Your task to perform on an android device: When is my next appointment? Image 0: 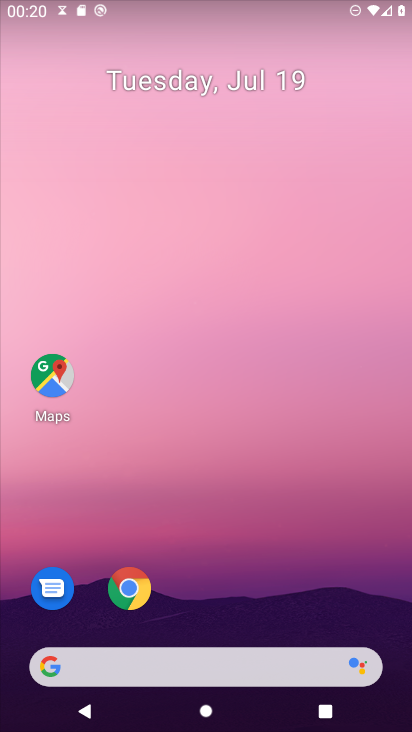
Step 0: press home button
Your task to perform on an android device: When is my next appointment? Image 1: 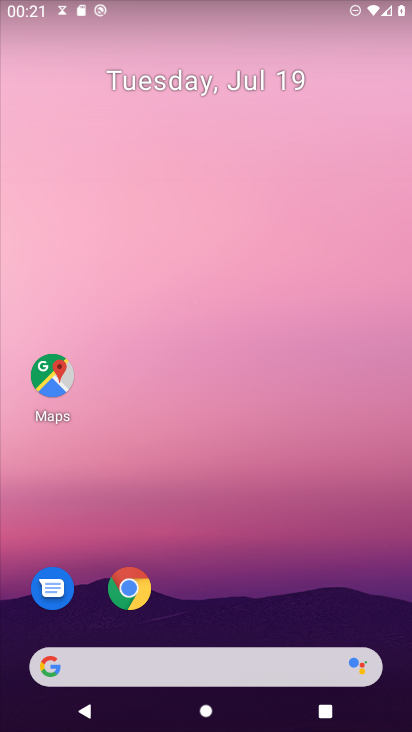
Step 1: drag from (307, 615) to (336, 222)
Your task to perform on an android device: When is my next appointment? Image 2: 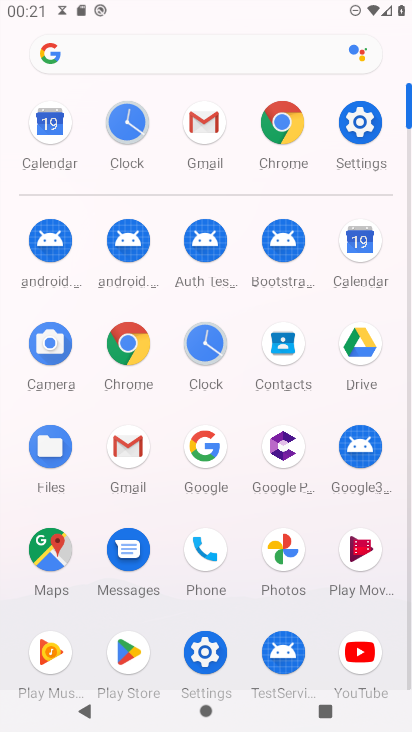
Step 2: click (365, 240)
Your task to perform on an android device: When is my next appointment? Image 3: 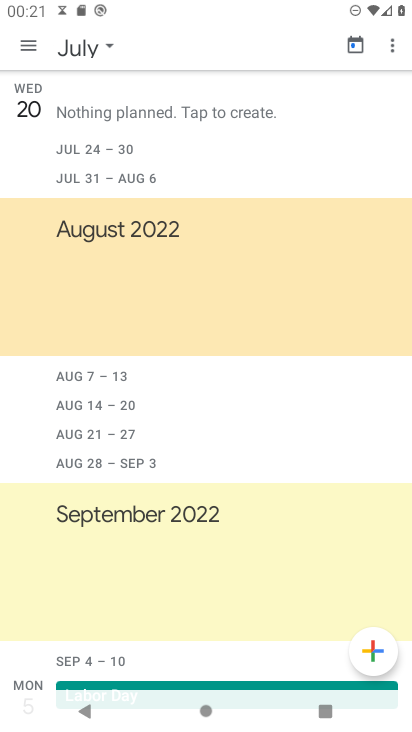
Step 3: click (29, 41)
Your task to perform on an android device: When is my next appointment? Image 4: 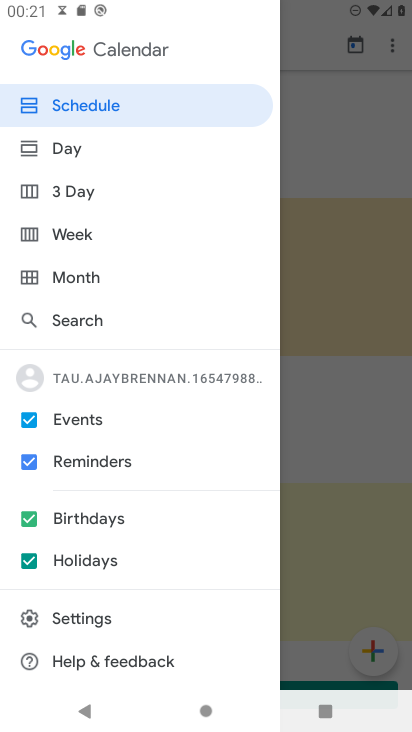
Step 4: click (87, 101)
Your task to perform on an android device: When is my next appointment? Image 5: 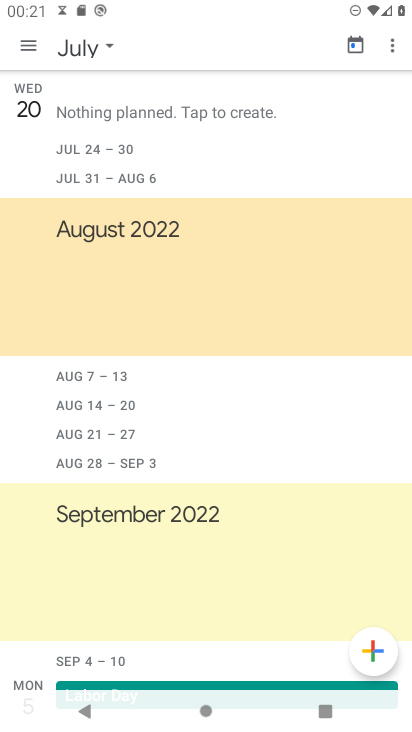
Step 5: task complete